Your task to perform on an android device: Turn on the flashlight Image 0: 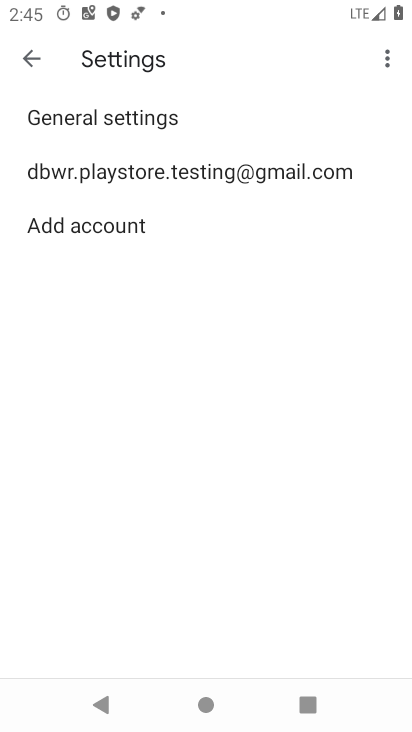
Step 0: press home button
Your task to perform on an android device: Turn on the flashlight Image 1: 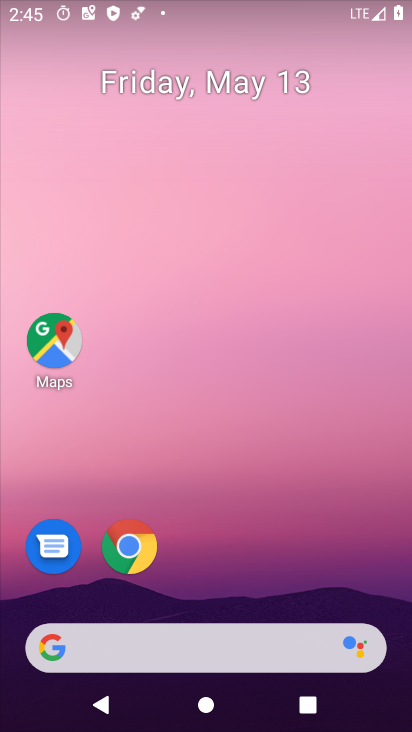
Step 1: task complete